Your task to perform on an android device: Search for "macbook pro 13 inch" on bestbuy.com, select the first entry, add it to the cart, then select checkout. Image 0: 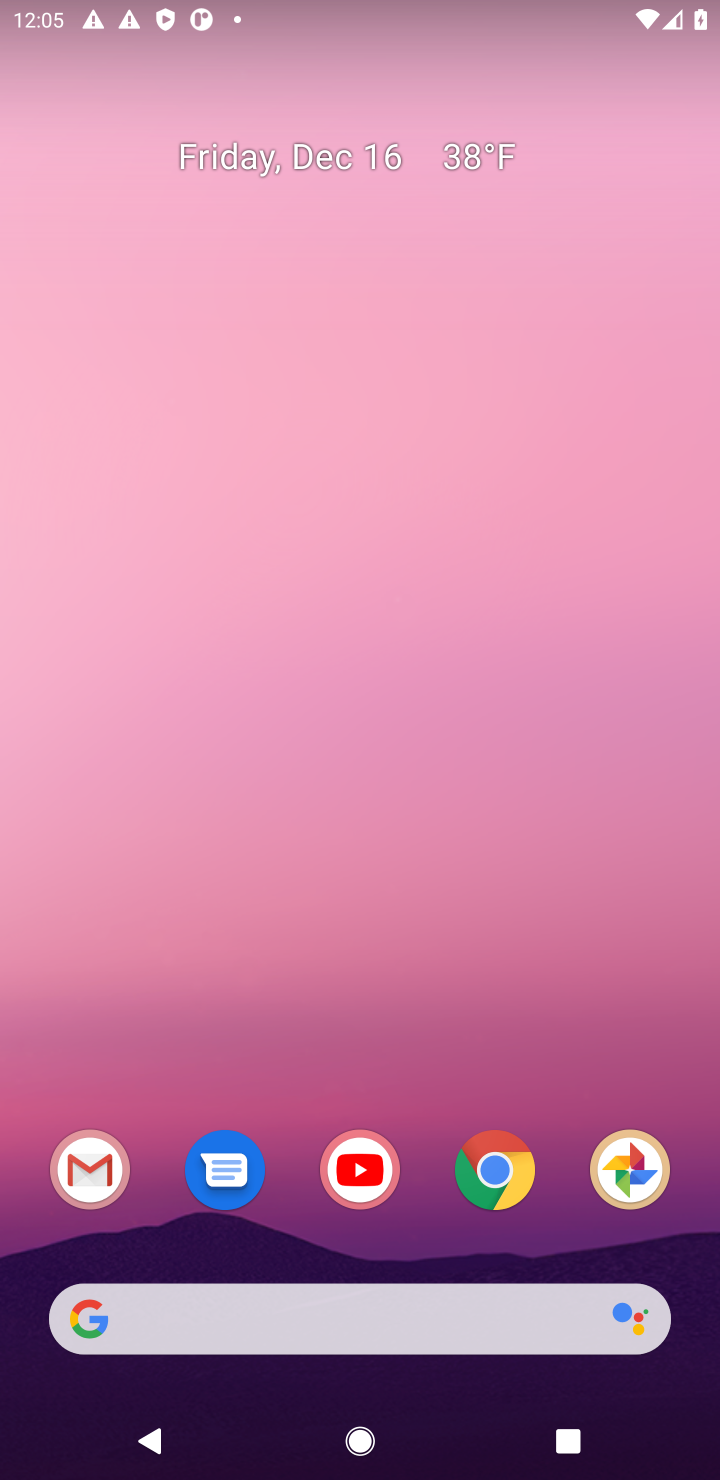
Step 0: click (502, 1176)
Your task to perform on an android device: Search for "macbook pro 13 inch" on bestbuy.com, select the first entry, add it to the cart, then select checkout. Image 1: 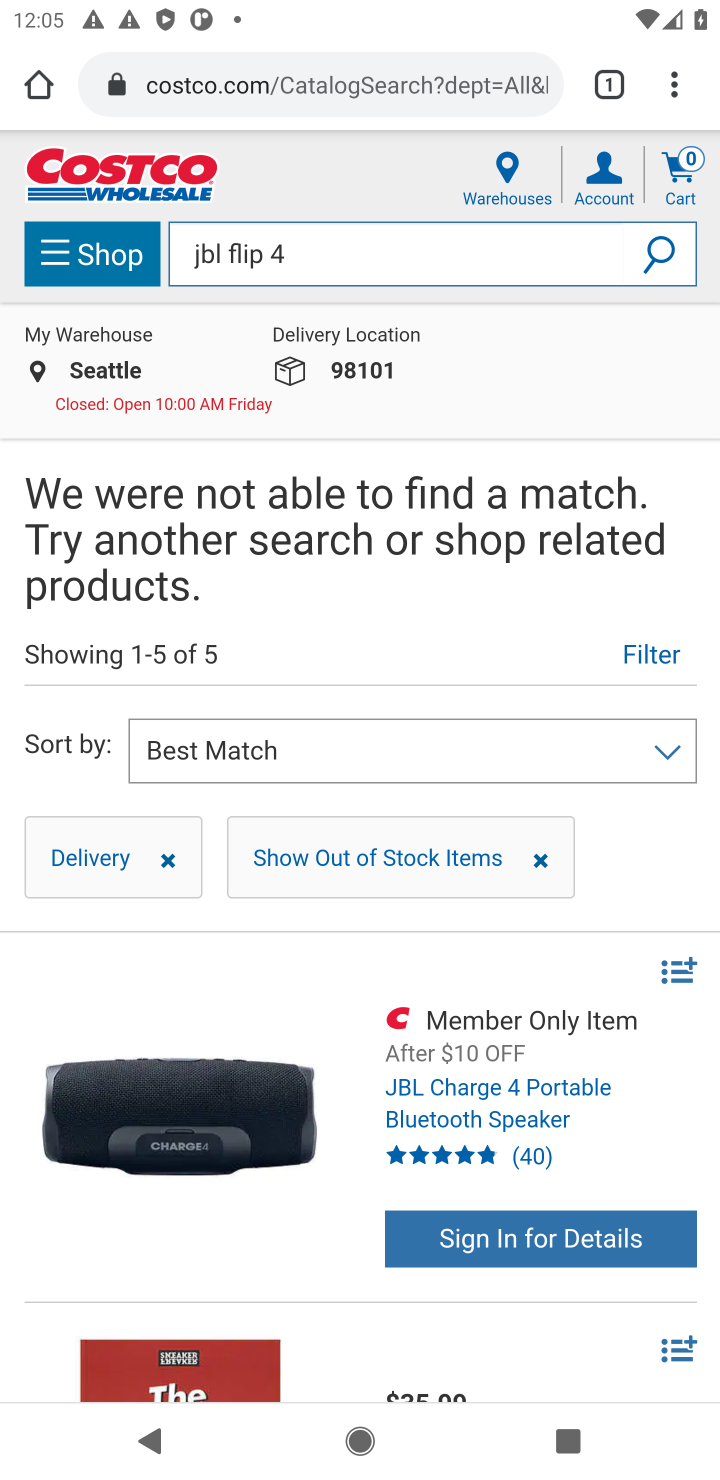
Step 1: click (286, 73)
Your task to perform on an android device: Search for "macbook pro 13 inch" on bestbuy.com, select the first entry, add it to the cart, then select checkout. Image 2: 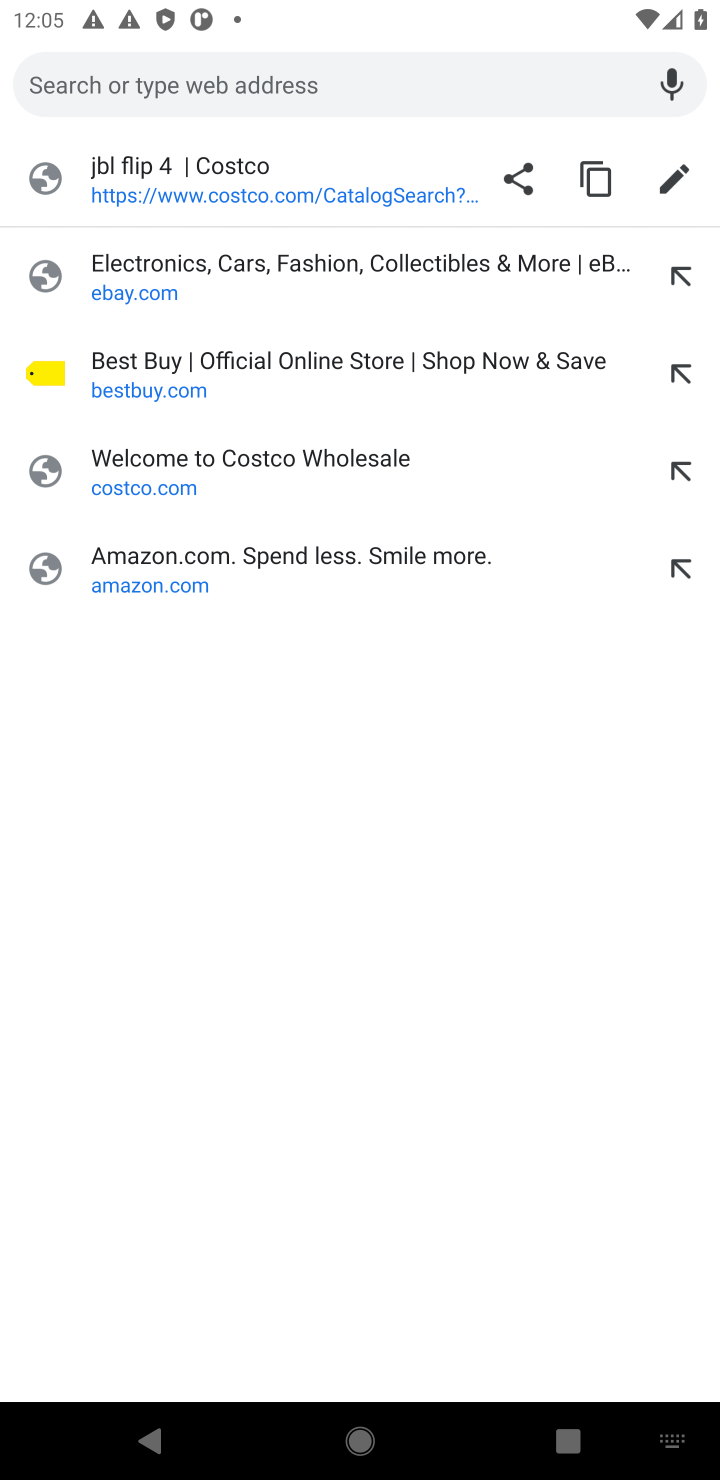
Step 2: click (117, 360)
Your task to perform on an android device: Search for "macbook pro 13 inch" on bestbuy.com, select the first entry, add it to the cart, then select checkout. Image 3: 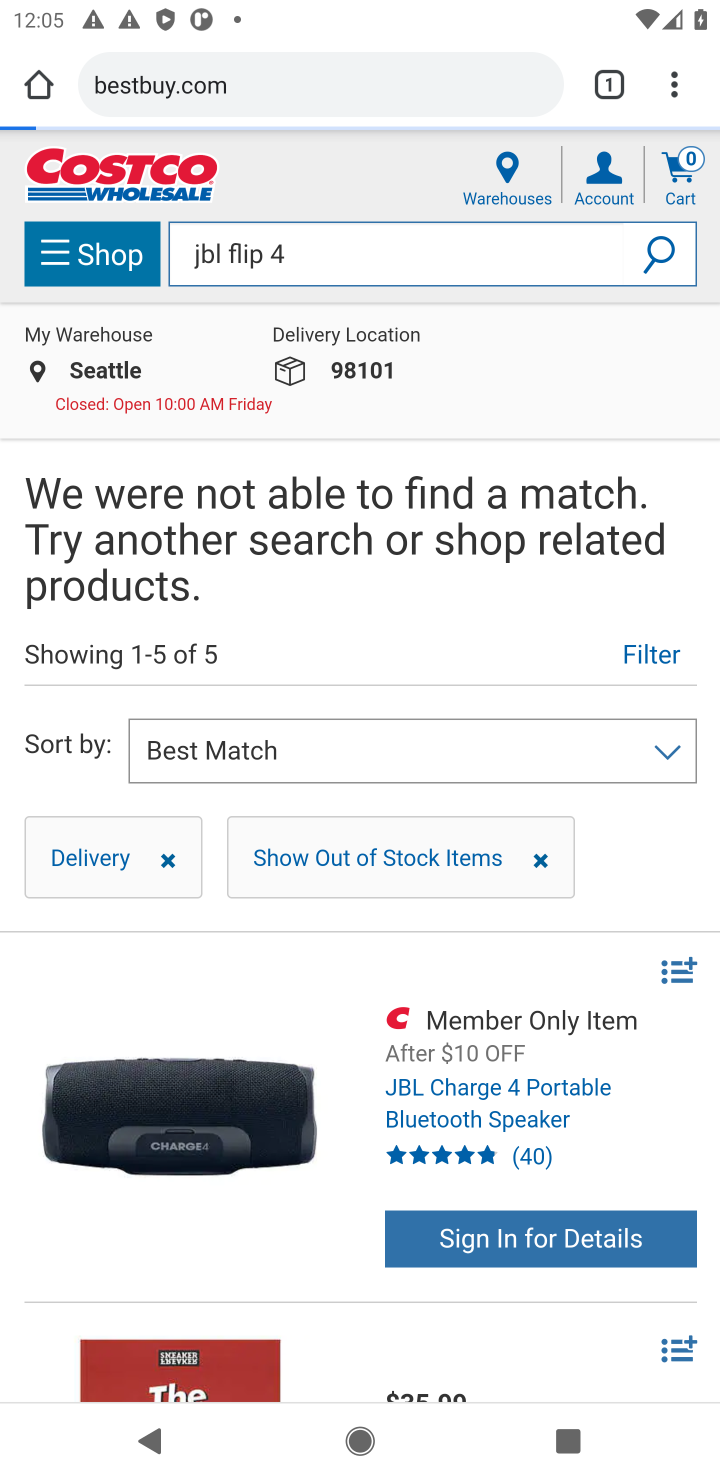
Step 3: click (284, 86)
Your task to perform on an android device: Search for "macbook pro 13 inch" on bestbuy.com, select the first entry, add it to the cart, then select checkout. Image 4: 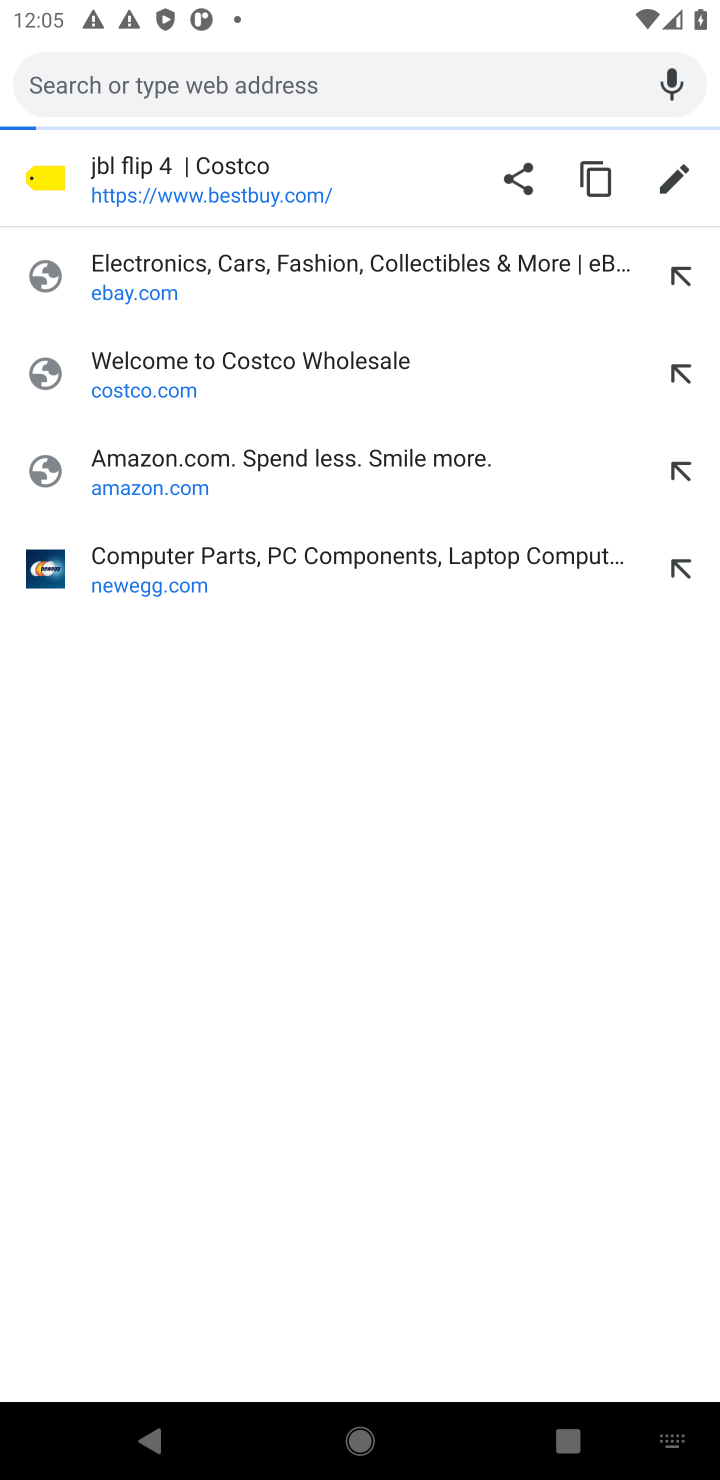
Step 4: type "bestbuy.com"
Your task to perform on an android device: Search for "macbook pro 13 inch" on bestbuy.com, select the first entry, add it to the cart, then select checkout. Image 5: 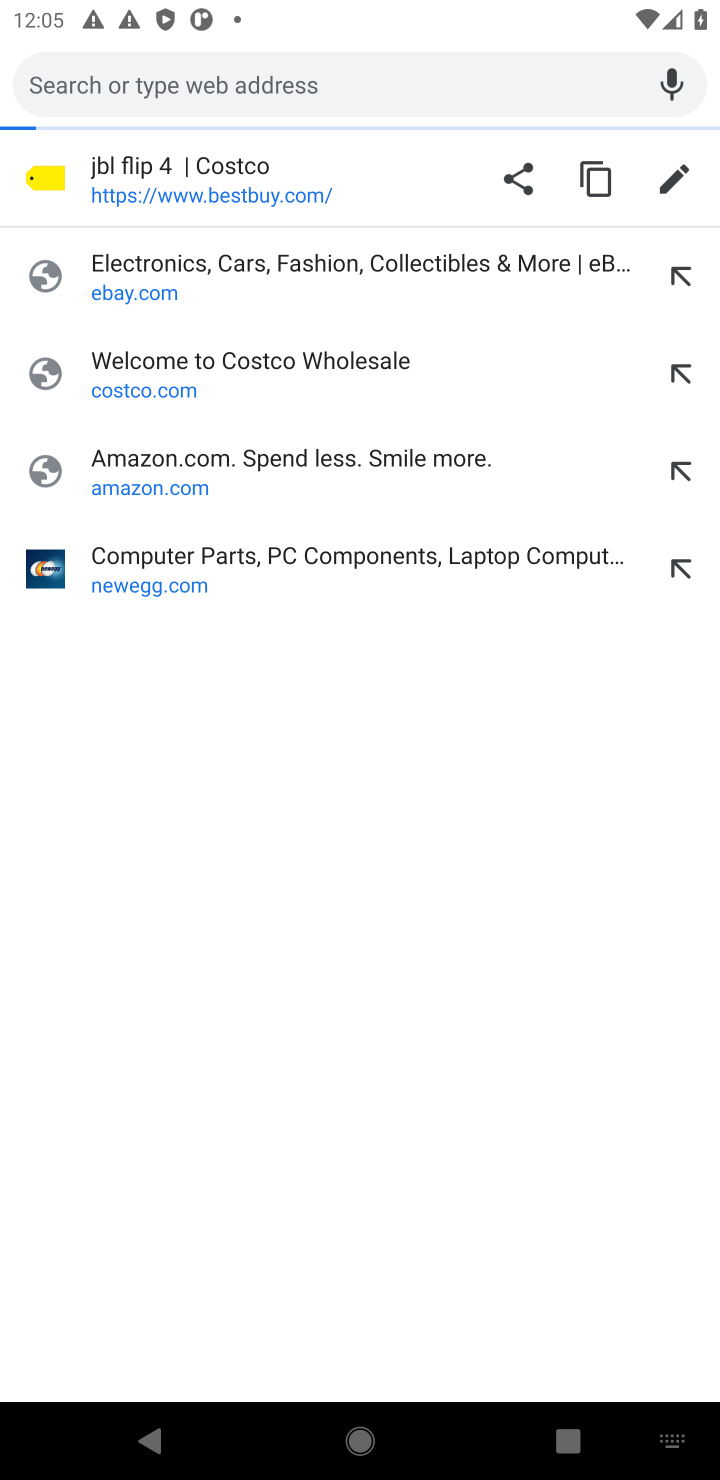
Step 5: click (189, 81)
Your task to perform on an android device: Search for "macbook pro 13 inch" on bestbuy.com, select the first entry, add it to the cart, then select checkout. Image 6: 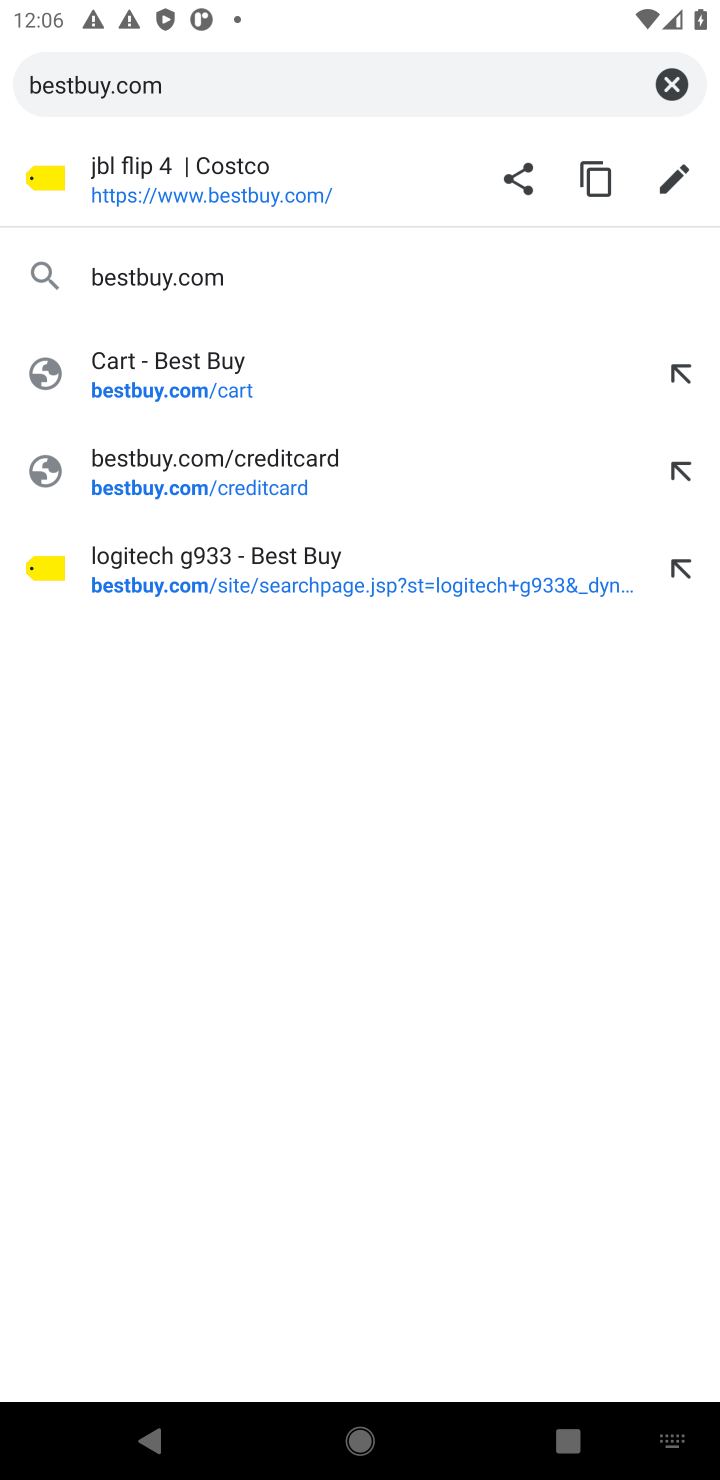
Step 6: click (134, 482)
Your task to perform on an android device: Search for "macbook pro 13 inch" on bestbuy.com, select the first entry, add it to the cart, then select checkout. Image 7: 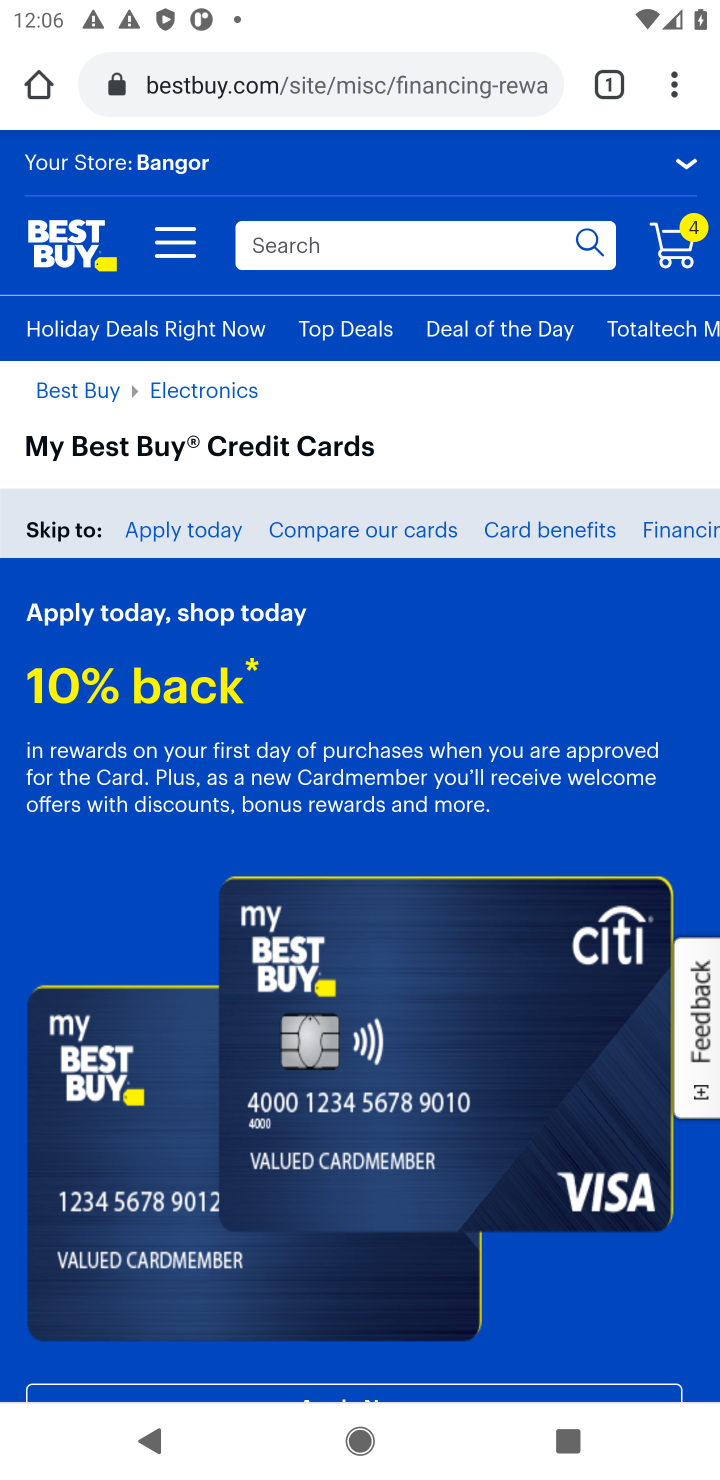
Step 7: click (355, 239)
Your task to perform on an android device: Search for "macbook pro 13 inch" on bestbuy.com, select the first entry, add it to the cart, then select checkout. Image 8: 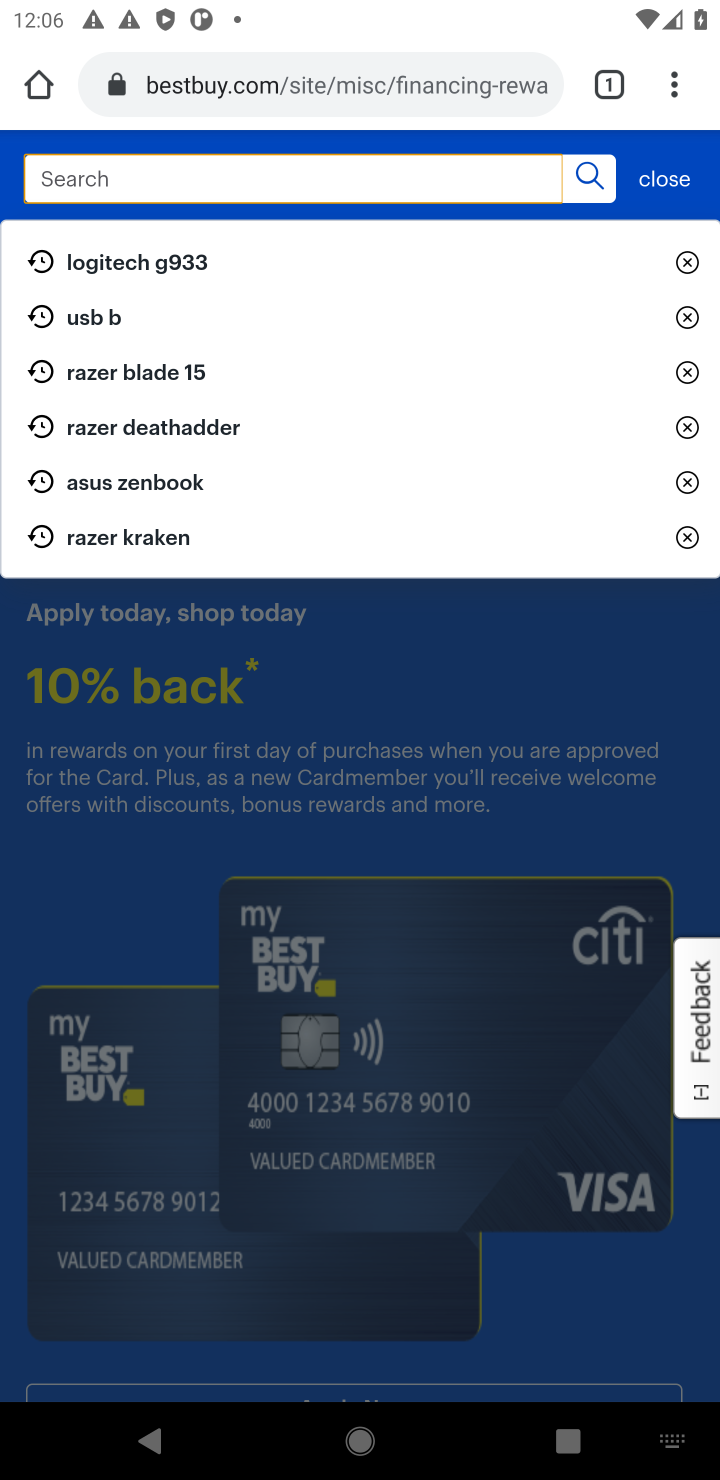
Step 8: type "macbook pro 13 inch"
Your task to perform on an android device: Search for "macbook pro 13 inch" on bestbuy.com, select the first entry, add it to the cart, then select checkout. Image 9: 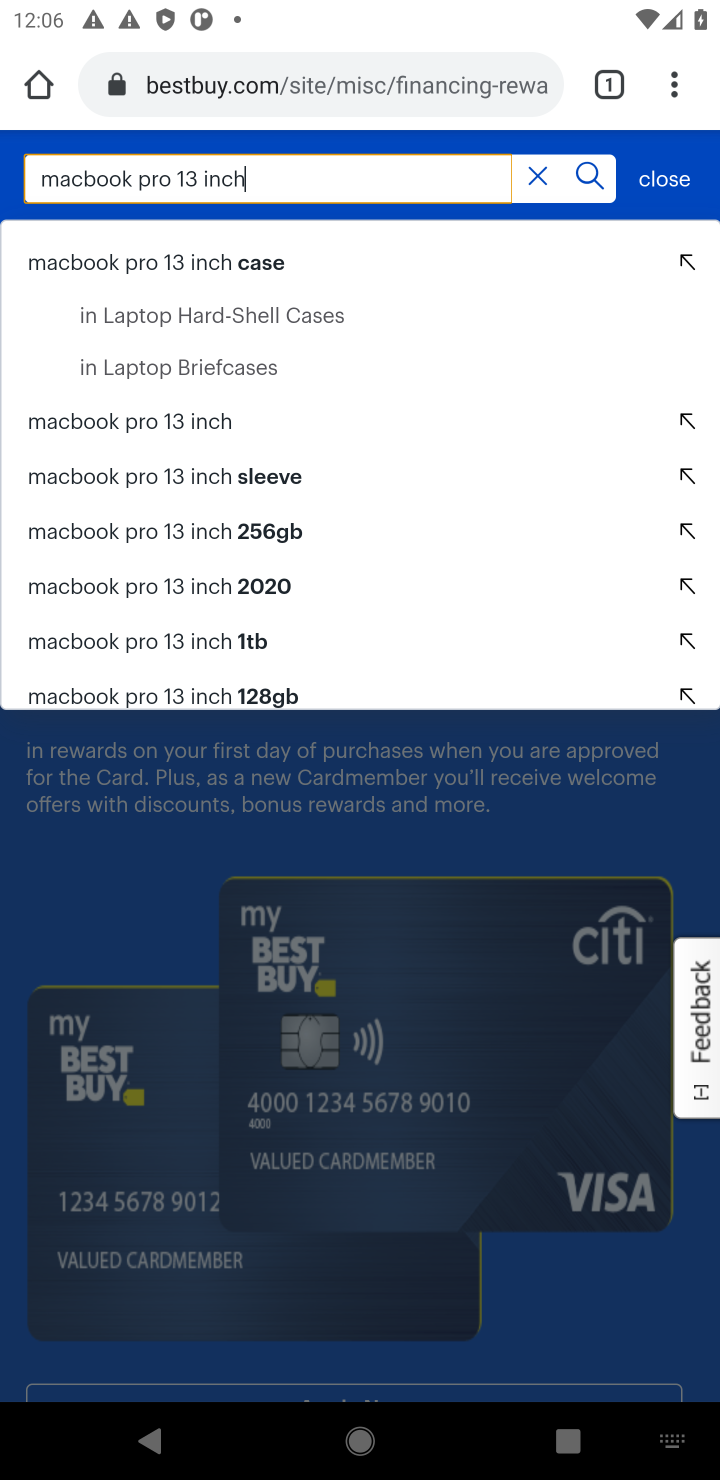
Step 9: click (584, 177)
Your task to perform on an android device: Search for "macbook pro 13 inch" on bestbuy.com, select the first entry, add it to the cart, then select checkout. Image 10: 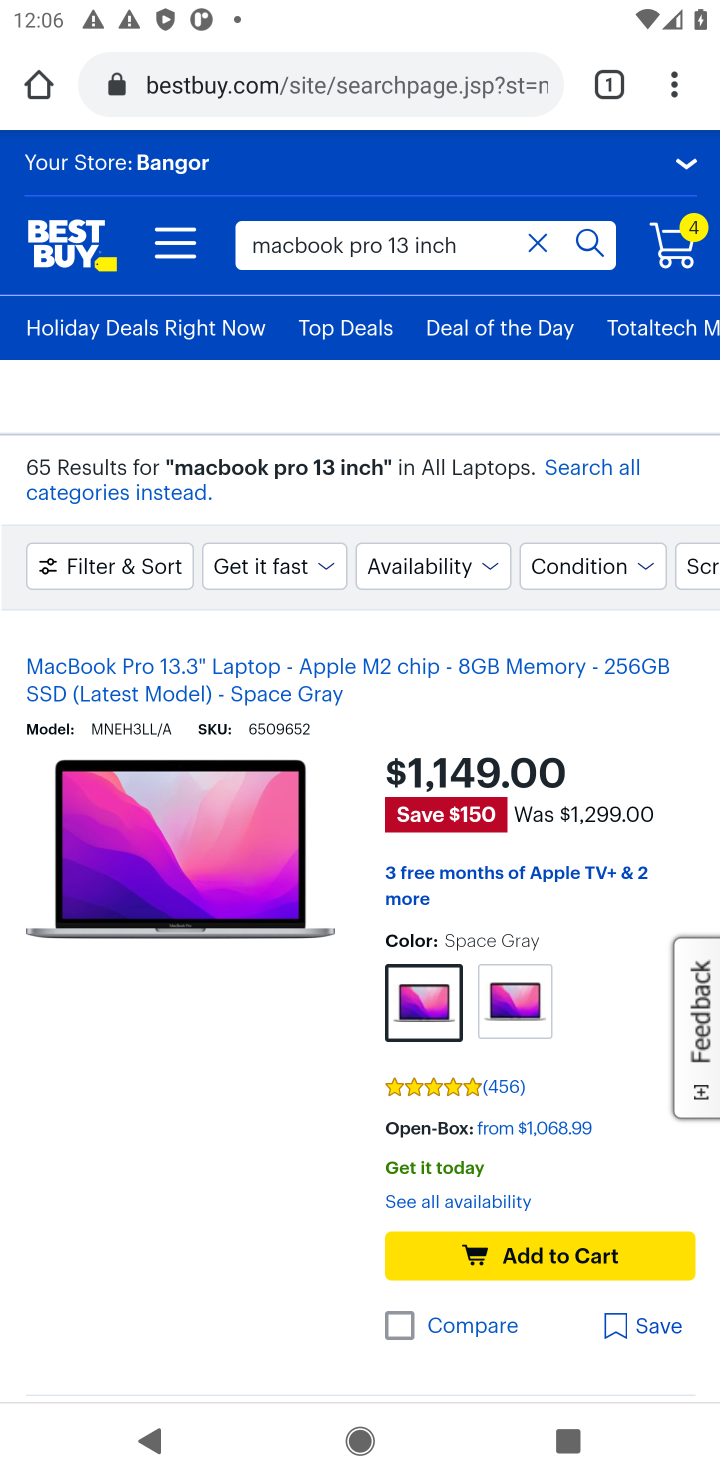
Step 10: click (550, 1255)
Your task to perform on an android device: Search for "macbook pro 13 inch" on bestbuy.com, select the first entry, add it to the cart, then select checkout. Image 11: 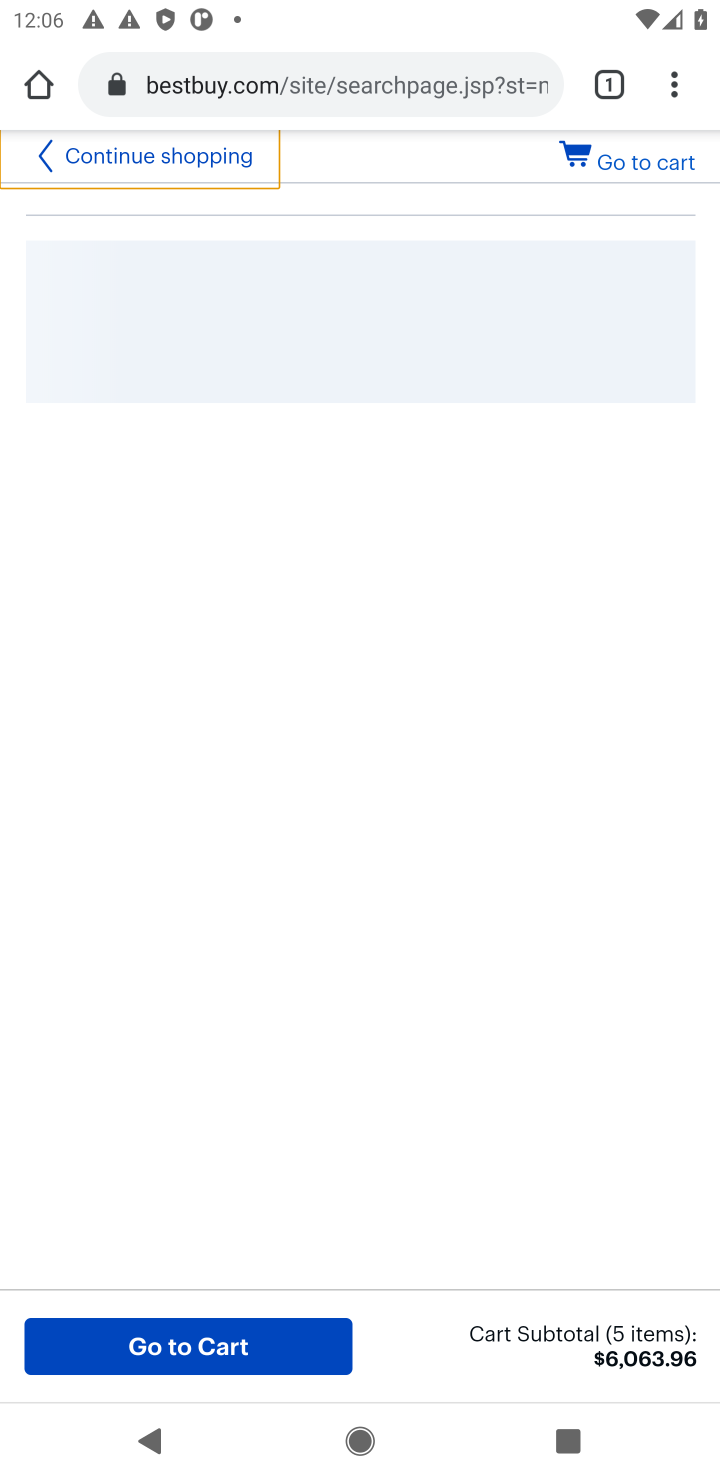
Step 11: click (666, 159)
Your task to perform on an android device: Search for "macbook pro 13 inch" on bestbuy.com, select the first entry, add it to the cart, then select checkout. Image 12: 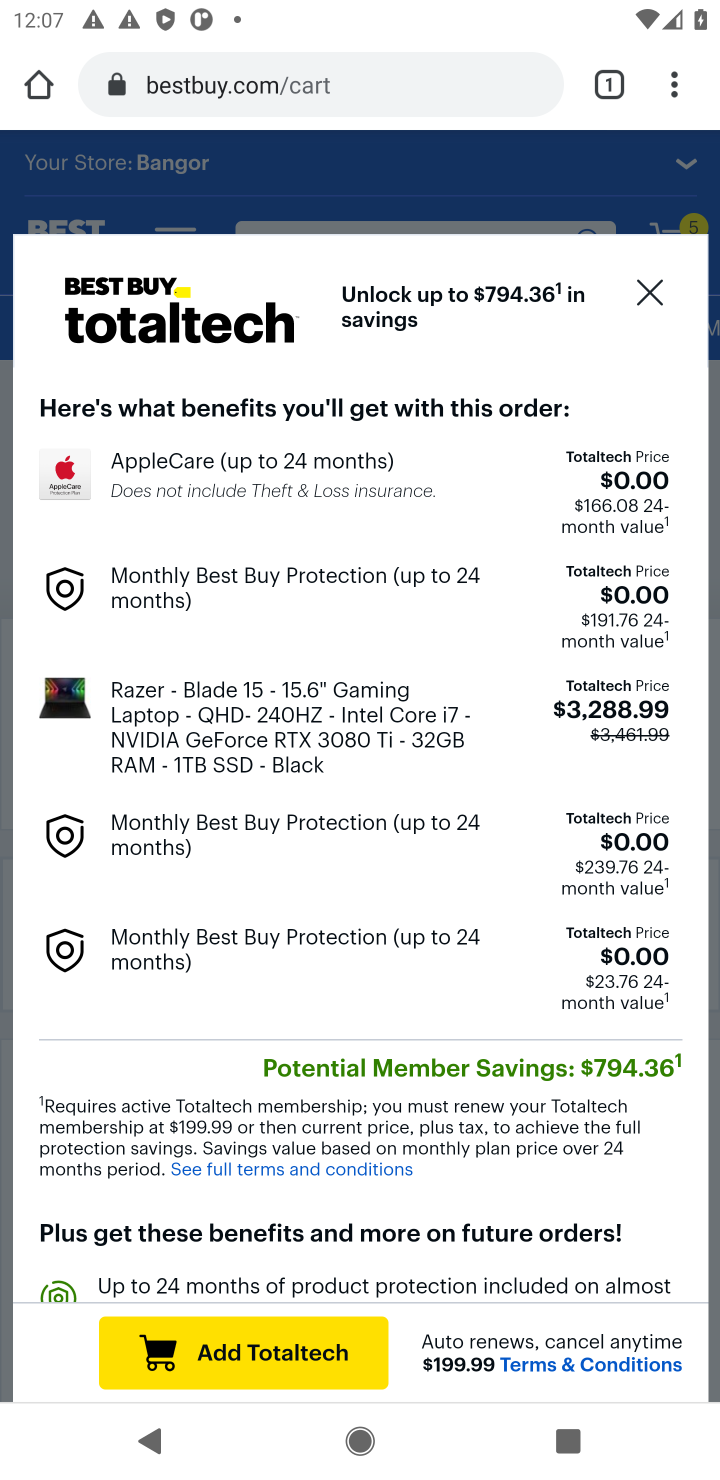
Step 12: click (654, 295)
Your task to perform on an android device: Search for "macbook pro 13 inch" on bestbuy.com, select the first entry, add it to the cart, then select checkout. Image 13: 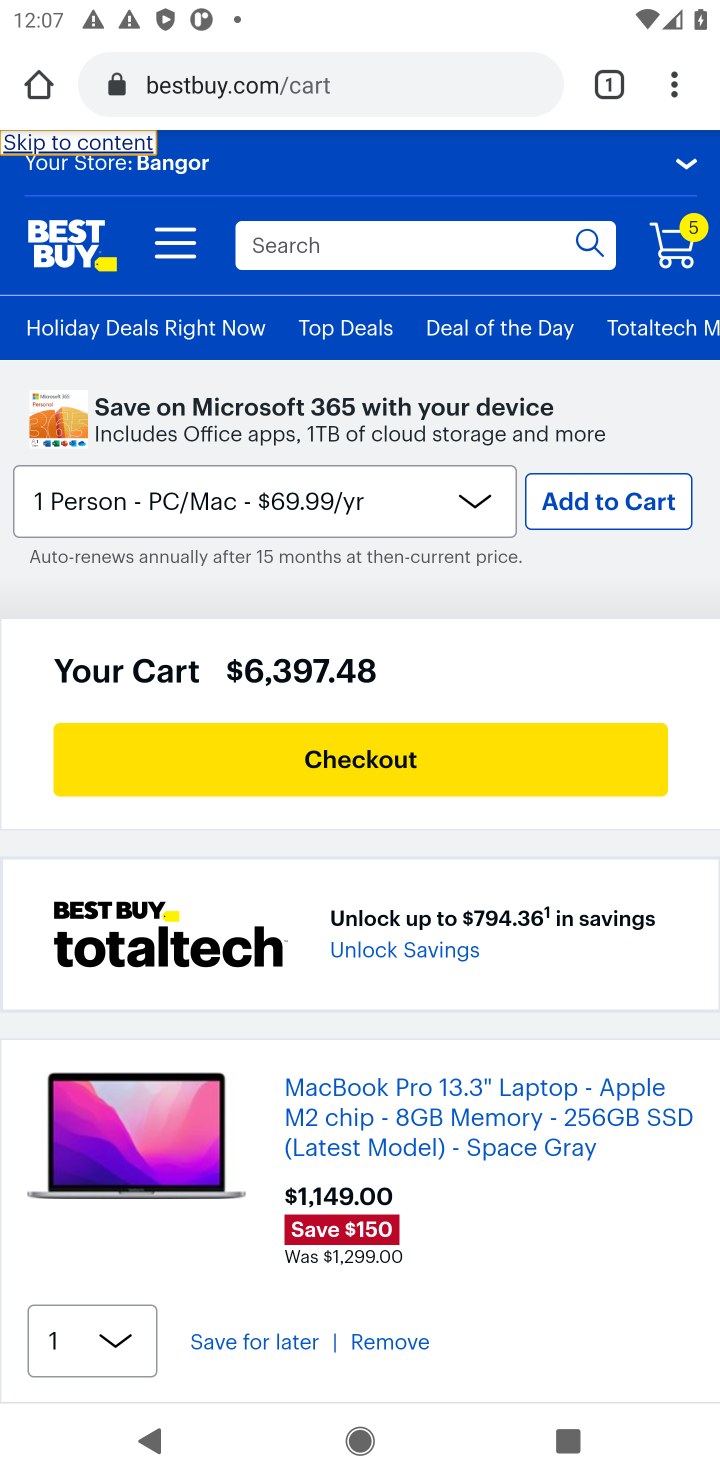
Step 13: drag from (443, 1064) to (526, 677)
Your task to perform on an android device: Search for "macbook pro 13 inch" on bestbuy.com, select the first entry, add it to the cart, then select checkout. Image 14: 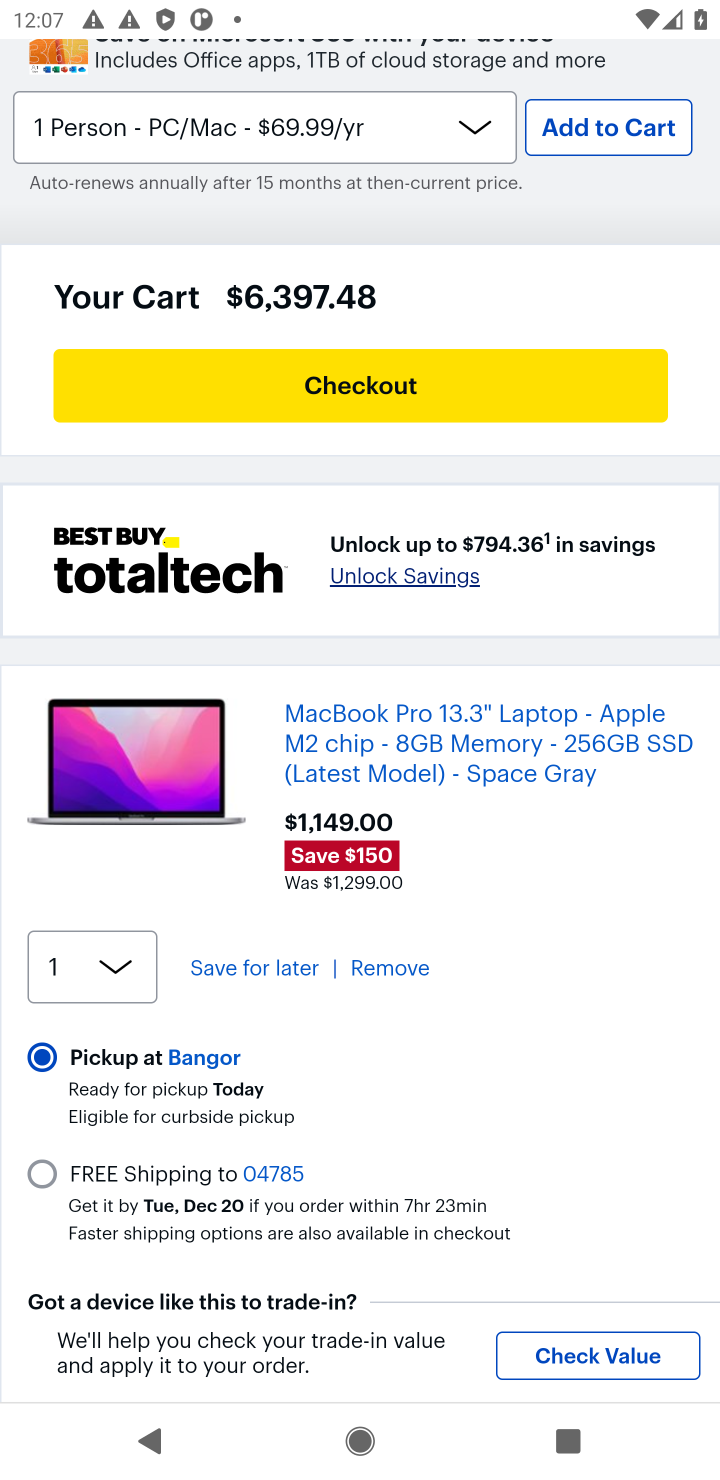
Step 14: click (399, 387)
Your task to perform on an android device: Search for "macbook pro 13 inch" on bestbuy.com, select the first entry, add it to the cart, then select checkout. Image 15: 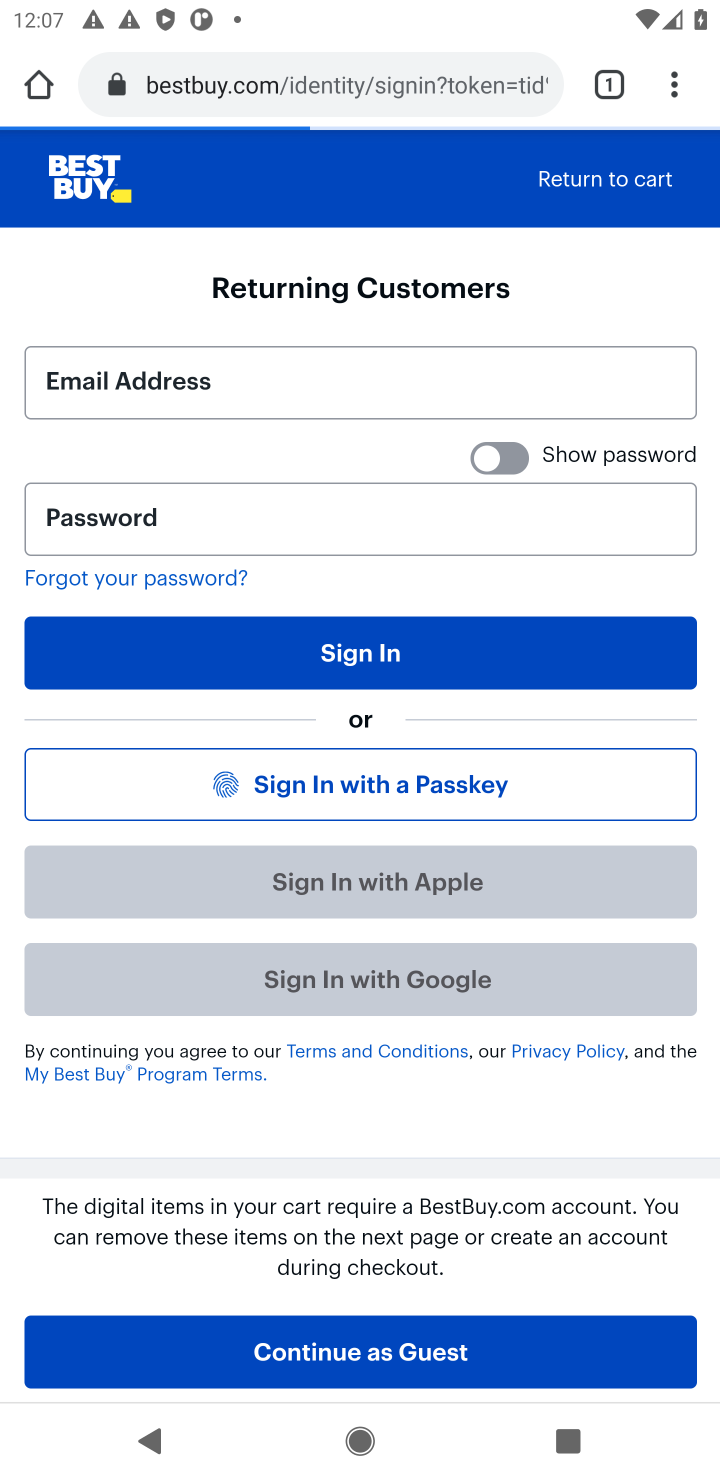
Step 15: task complete